Your task to perform on an android device: change notifications settings Image 0: 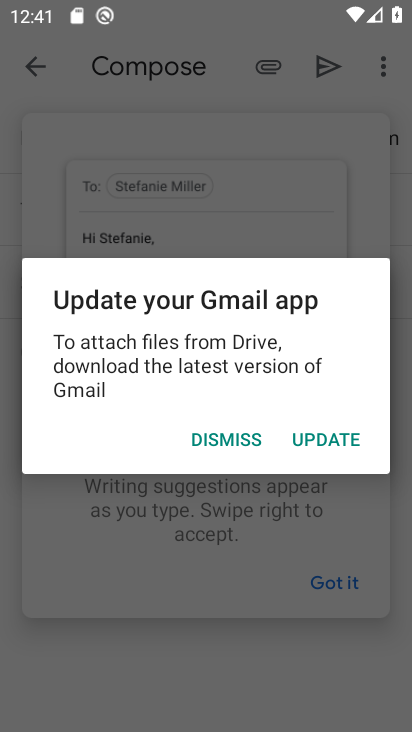
Step 0: press home button
Your task to perform on an android device: change notifications settings Image 1: 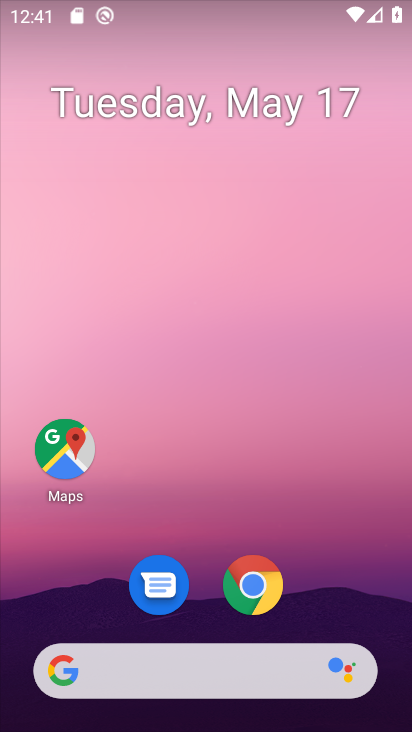
Step 1: drag from (325, 573) to (279, 33)
Your task to perform on an android device: change notifications settings Image 2: 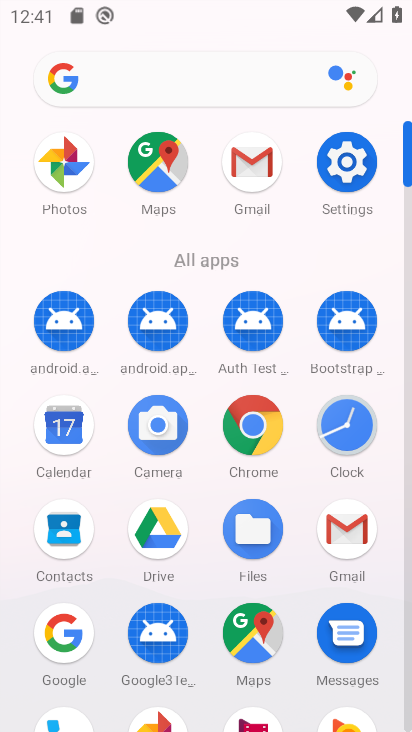
Step 2: click (345, 153)
Your task to perform on an android device: change notifications settings Image 3: 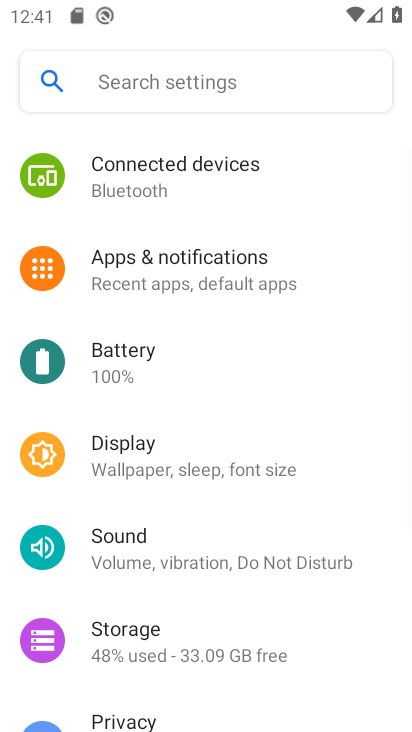
Step 3: click (243, 268)
Your task to perform on an android device: change notifications settings Image 4: 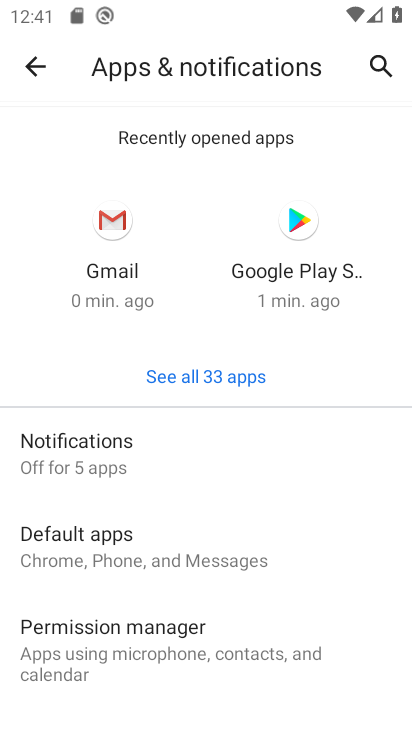
Step 4: click (189, 465)
Your task to perform on an android device: change notifications settings Image 5: 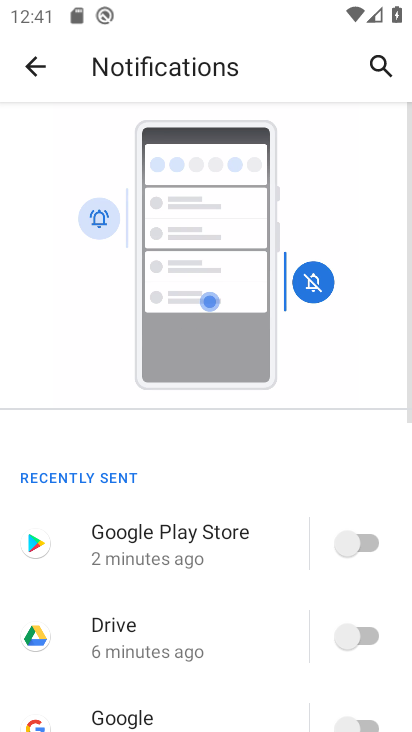
Step 5: drag from (186, 600) to (234, 237)
Your task to perform on an android device: change notifications settings Image 6: 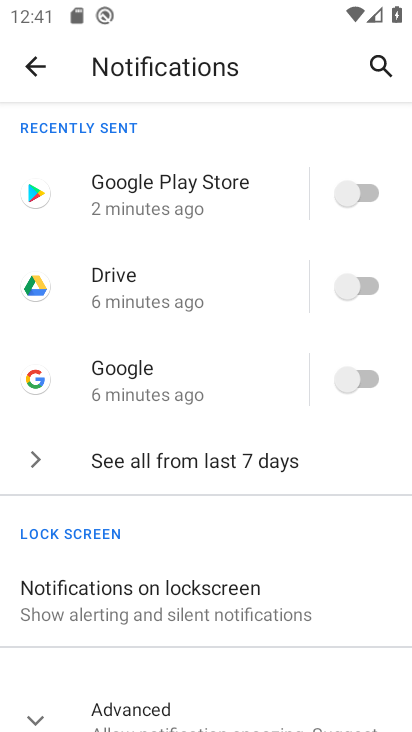
Step 6: click (232, 466)
Your task to perform on an android device: change notifications settings Image 7: 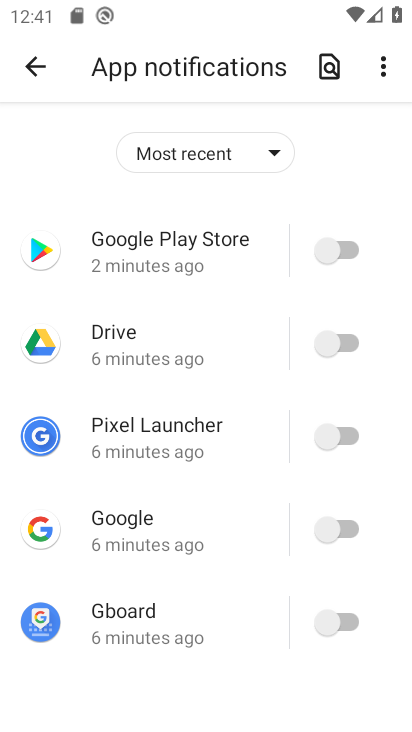
Step 7: click (335, 253)
Your task to perform on an android device: change notifications settings Image 8: 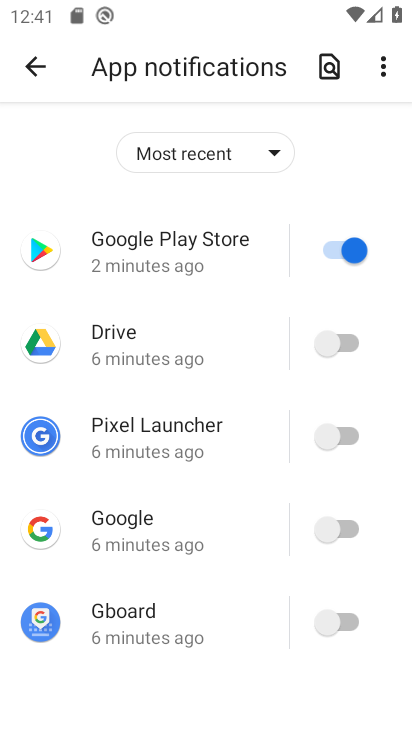
Step 8: click (340, 338)
Your task to perform on an android device: change notifications settings Image 9: 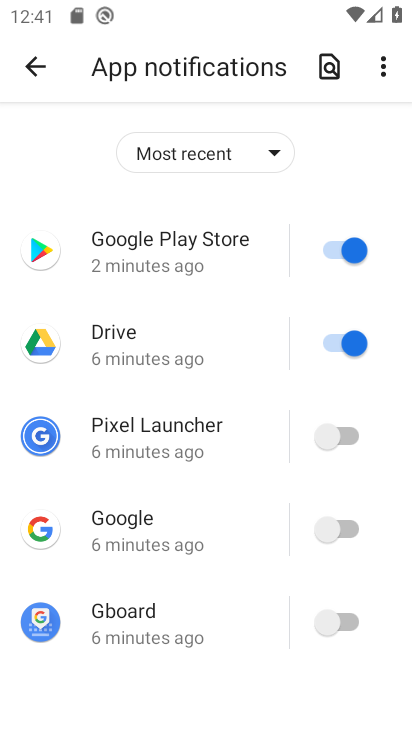
Step 9: click (339, 424)
Your task to perform on an android device: change notifications settings Image 10: 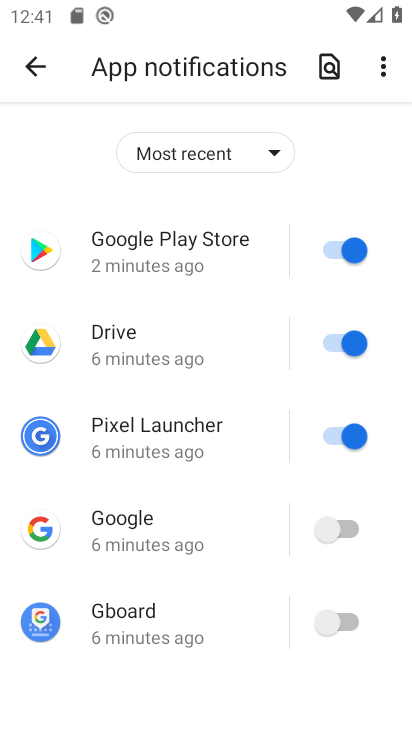
Step 10: click (327, 522)
Your task to perform on an android device: change notifications settings Image 11: 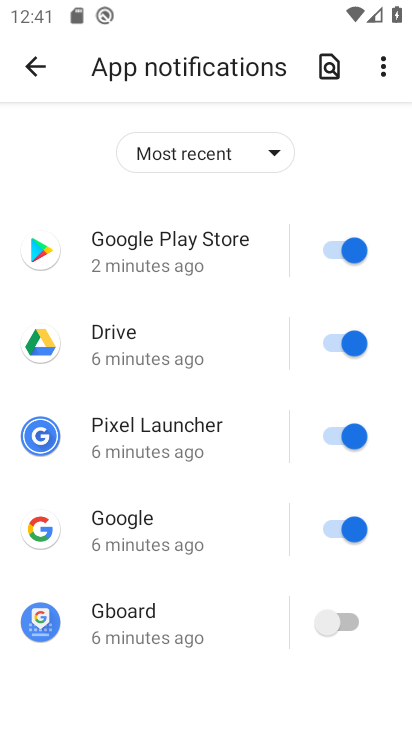
Step 11: click (331, 615)
Your task to perform on an android device: change notifications settings Image 12: 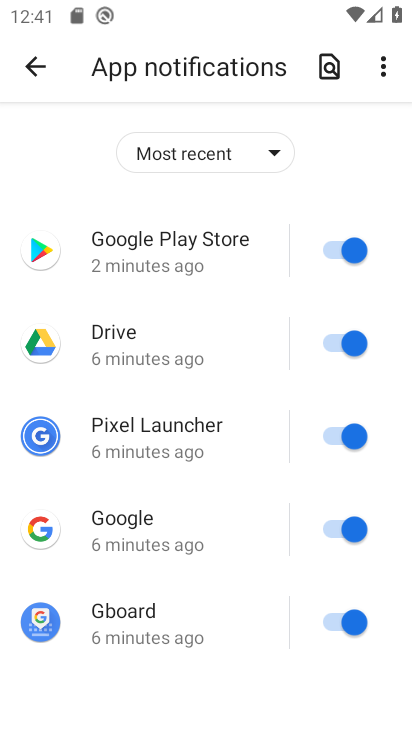
Step 12: task complete